Your task to perform on an android device: delete location history Image 0: 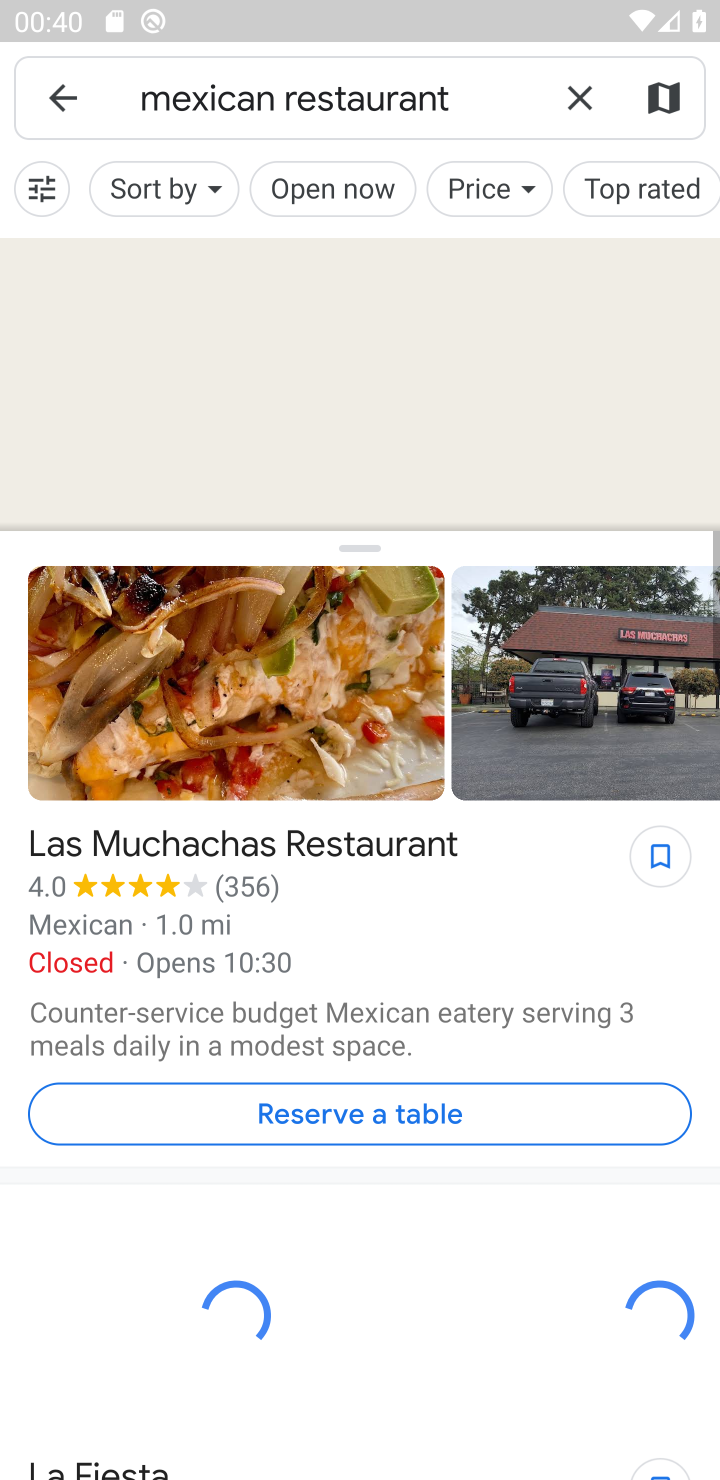
Step 0: press home button
Your task to perform on an android device: delete location history Image 1: 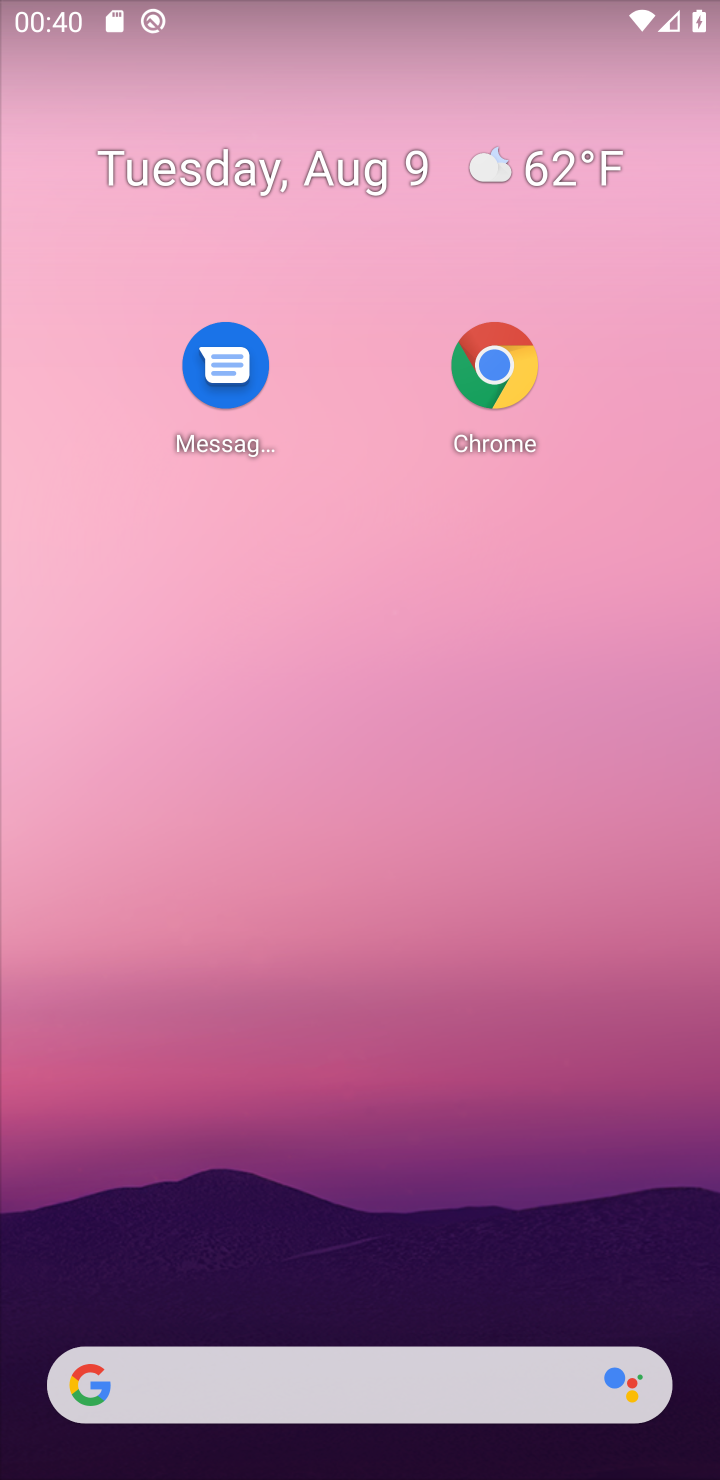
Step 1: drag from (271, 1187) to (277, 410)
Your task to perform on an android device: delete location history Image 2: 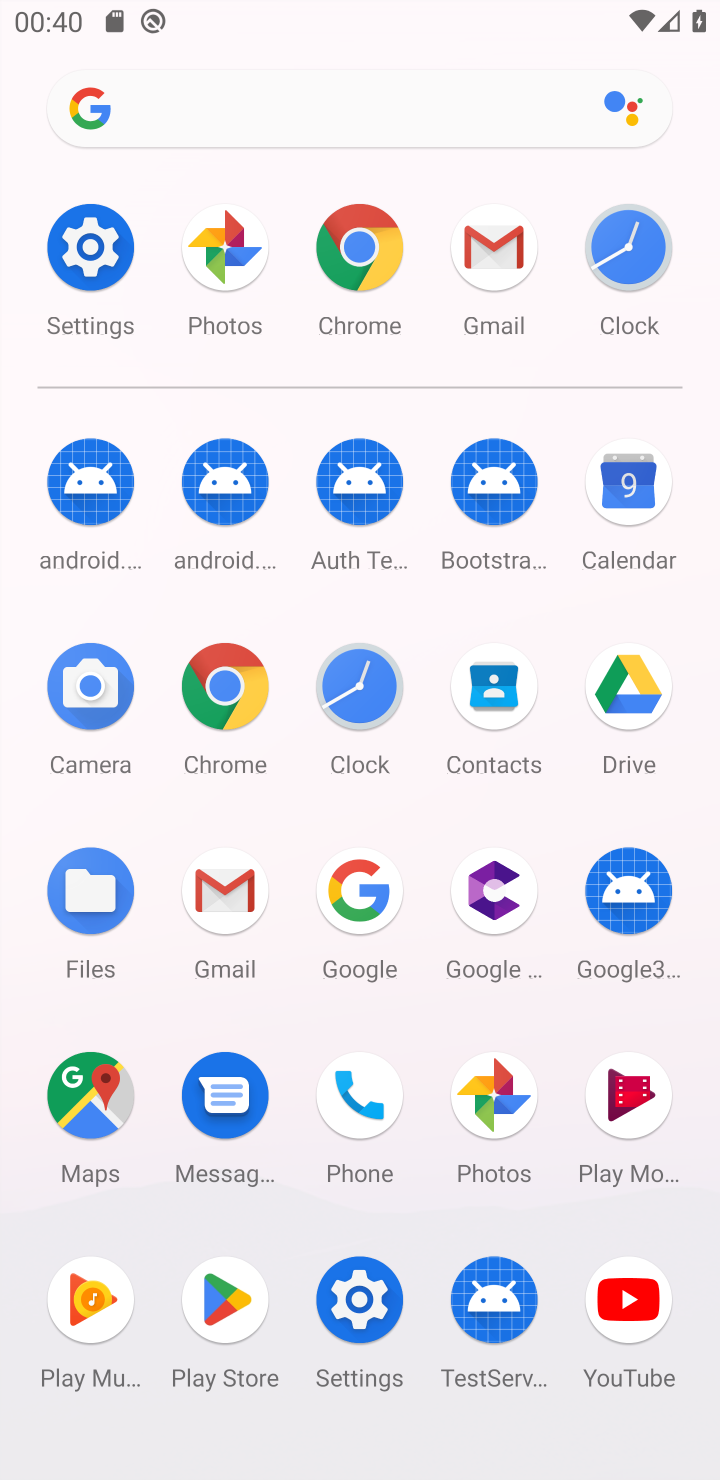
Step 2: click (87, 238)
Your task to perform on an android device: delete location history Image 3: 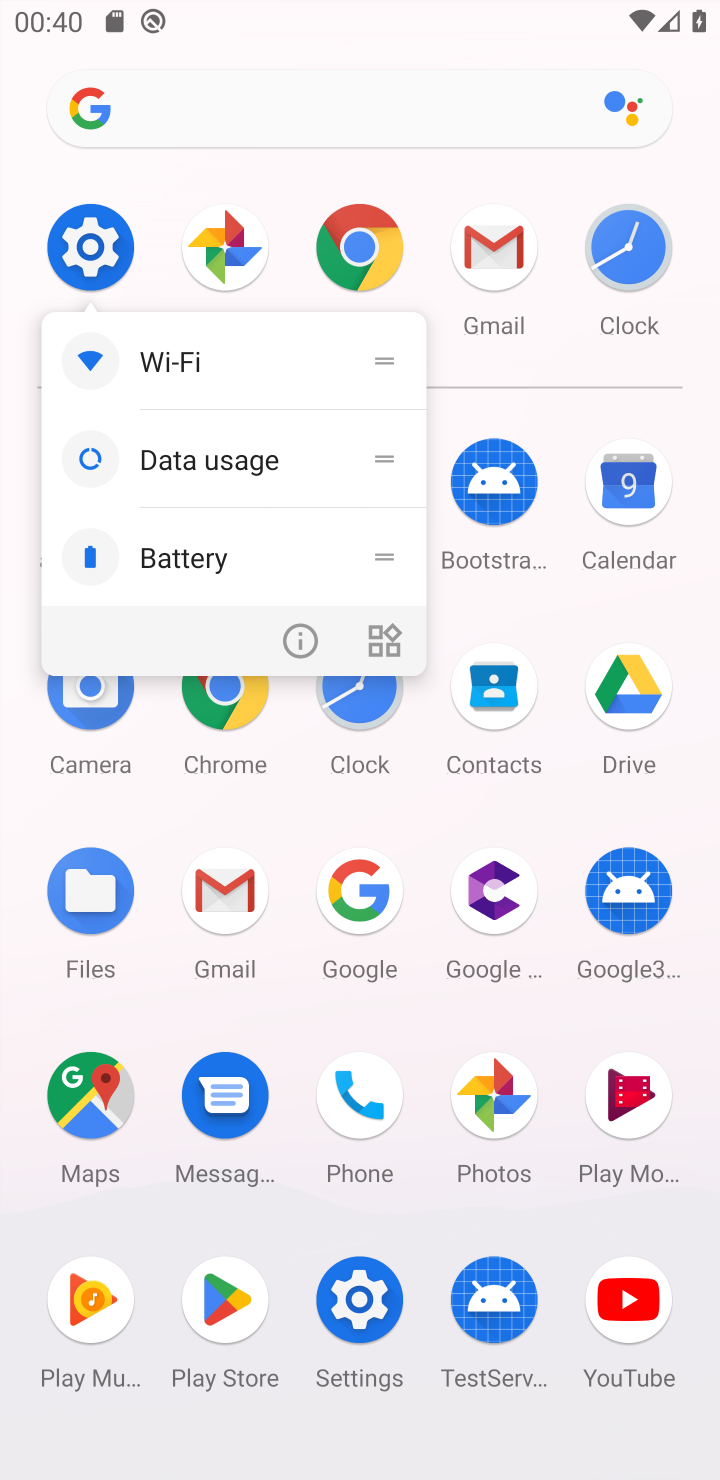
Step 3: click (87, 238)
Your task to perform on an android device: delete location history Image 4: 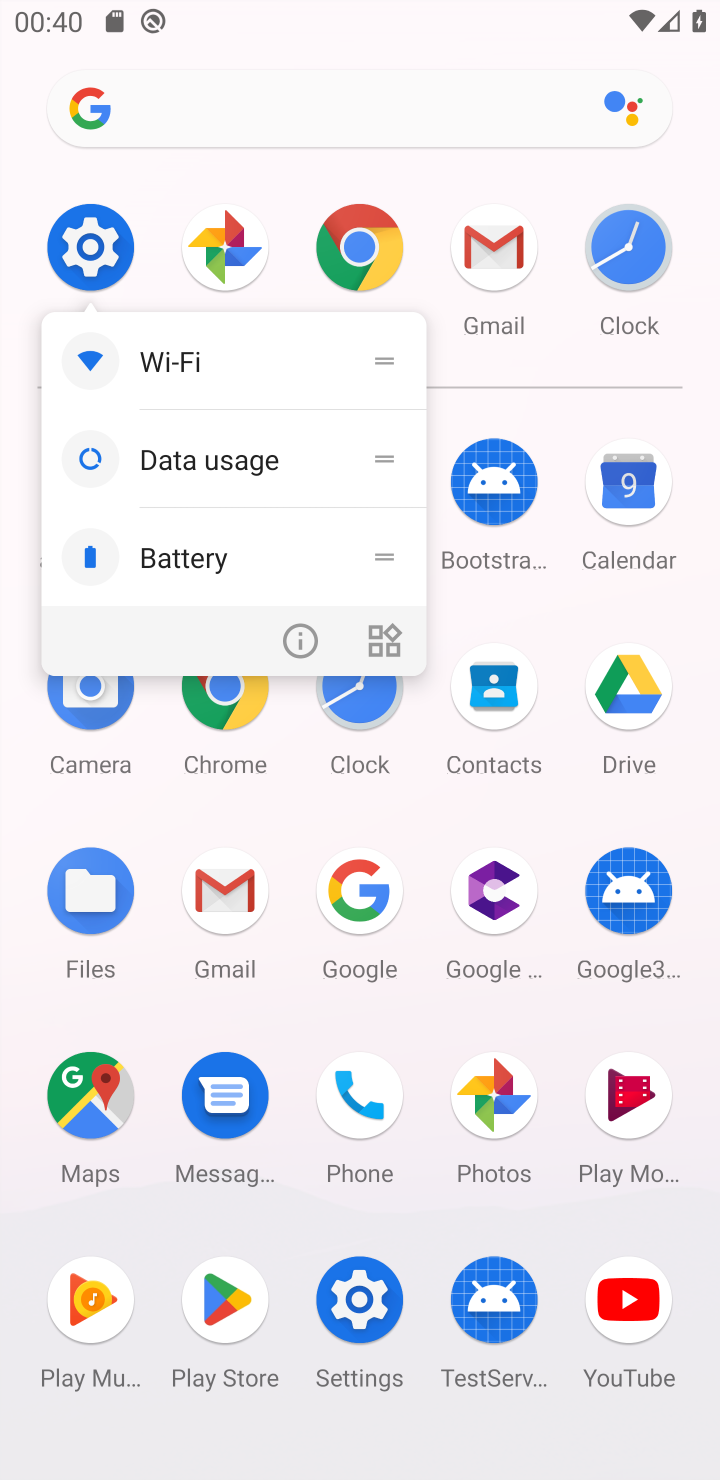
Step 4: click (87, 238)
Your task to perform on an android device: delete location history Image 5: 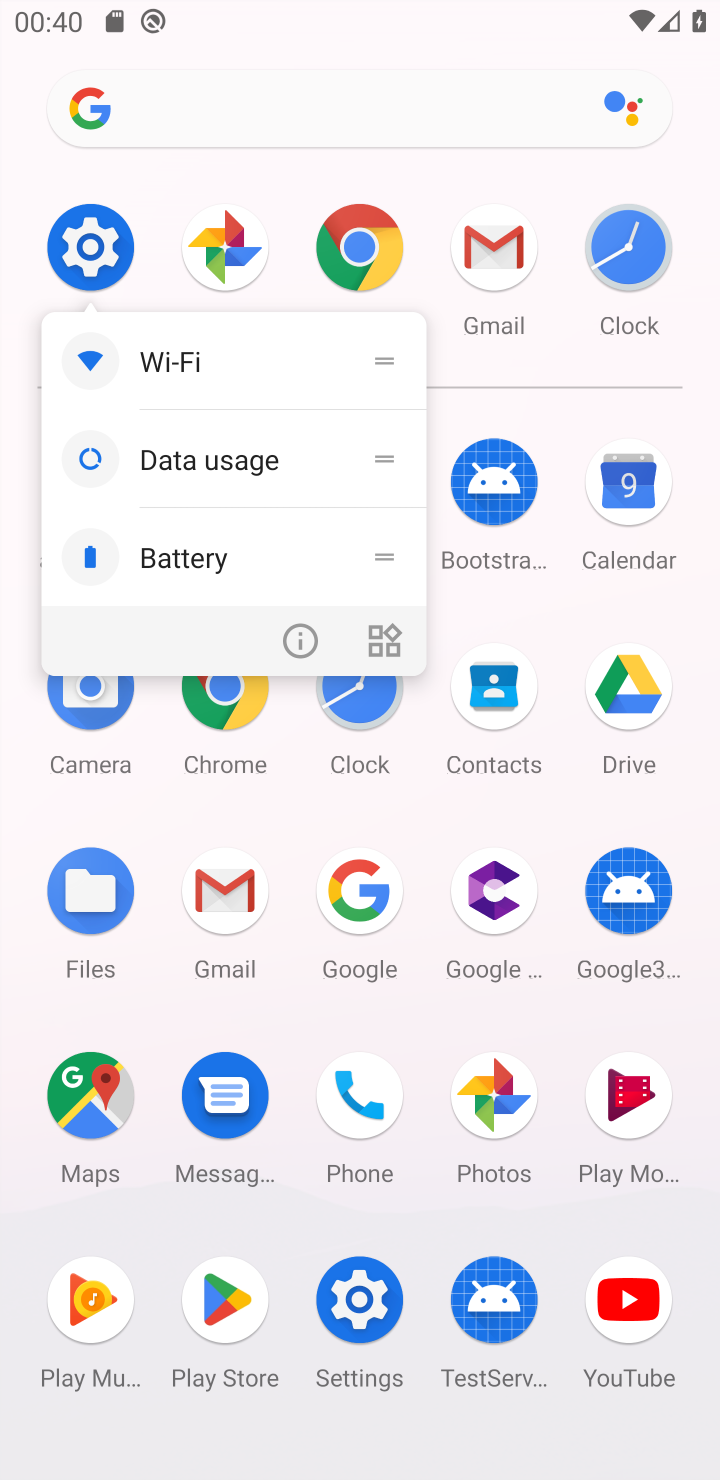
Step 5: click (87, 238)
Your task to perform on an android device: delete location history Image 6: 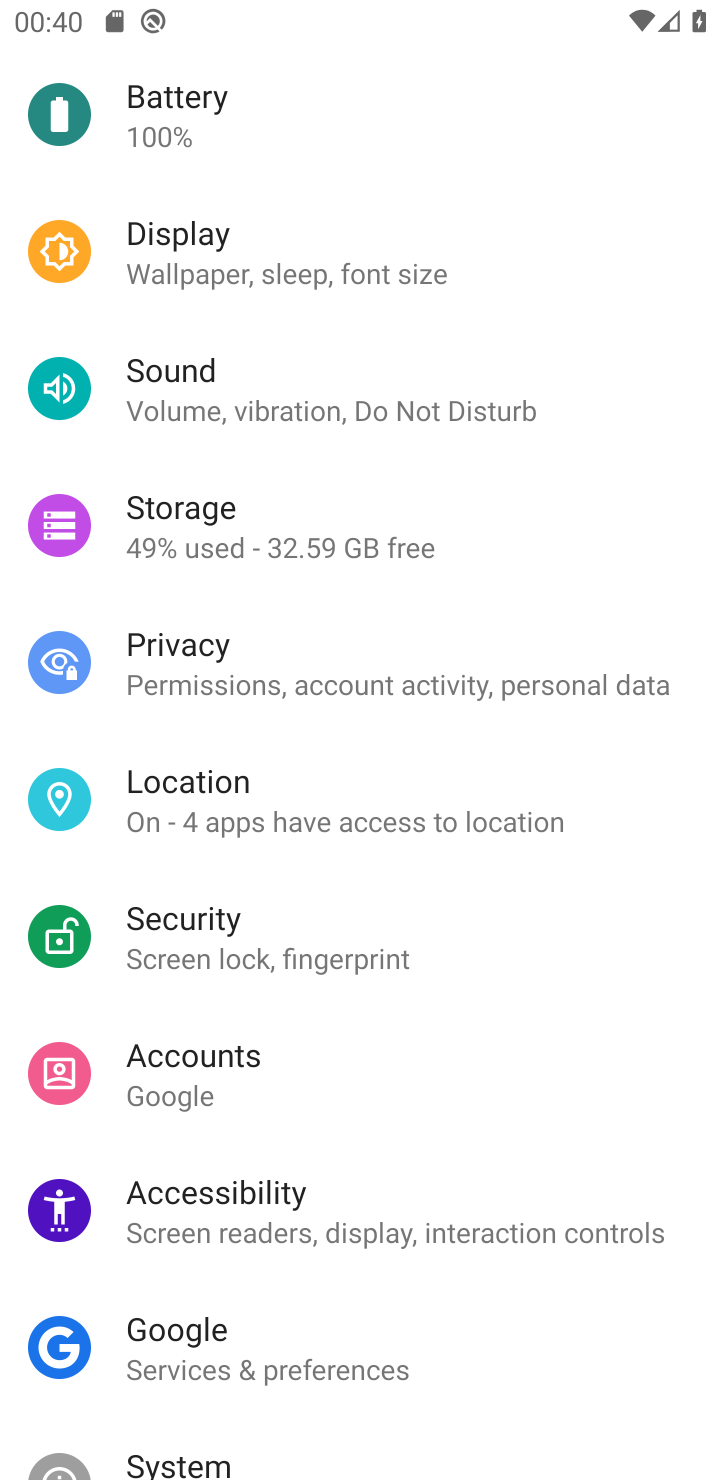
Step 6: click (129, 809)
Your task to perform on an android device: delete location history Image 7: 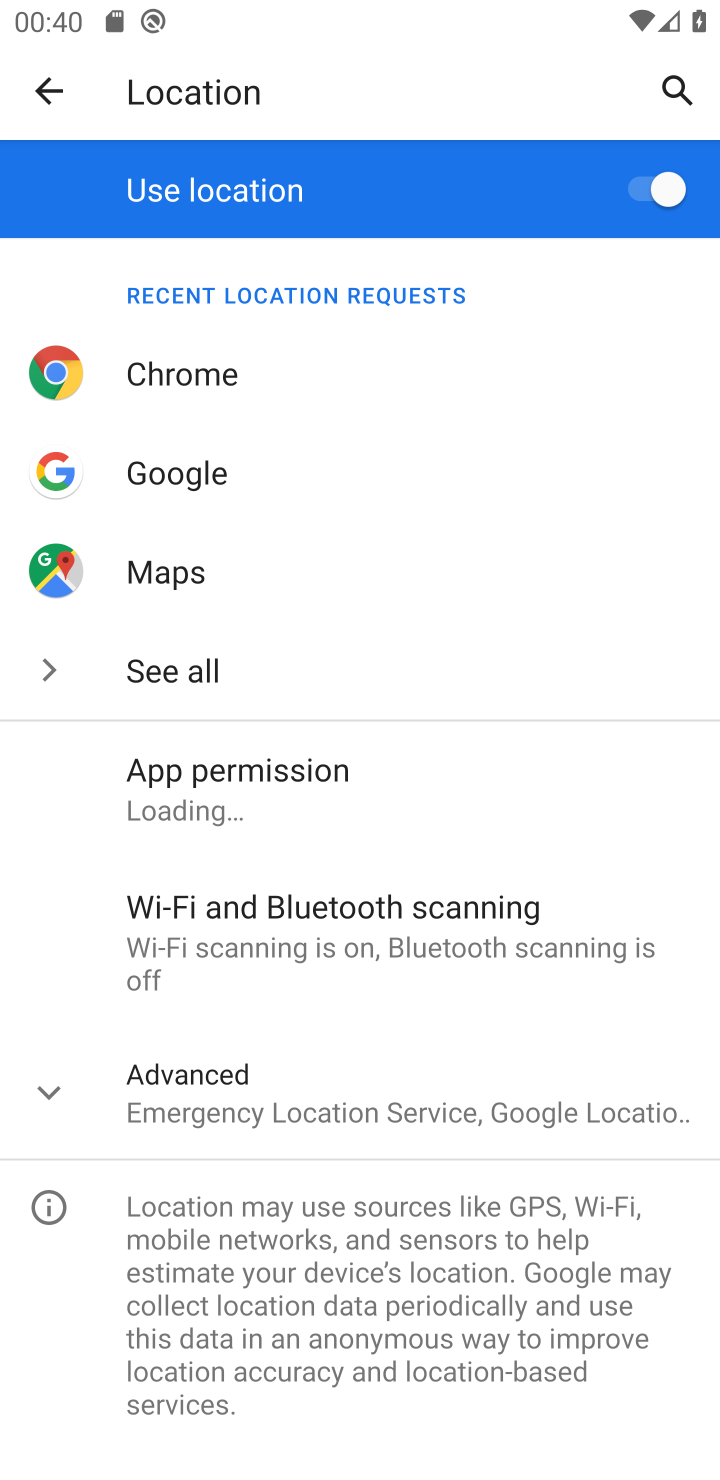
Step 7: click (168, 1056)
Your task to perform on an android device: delete location history Image 8: 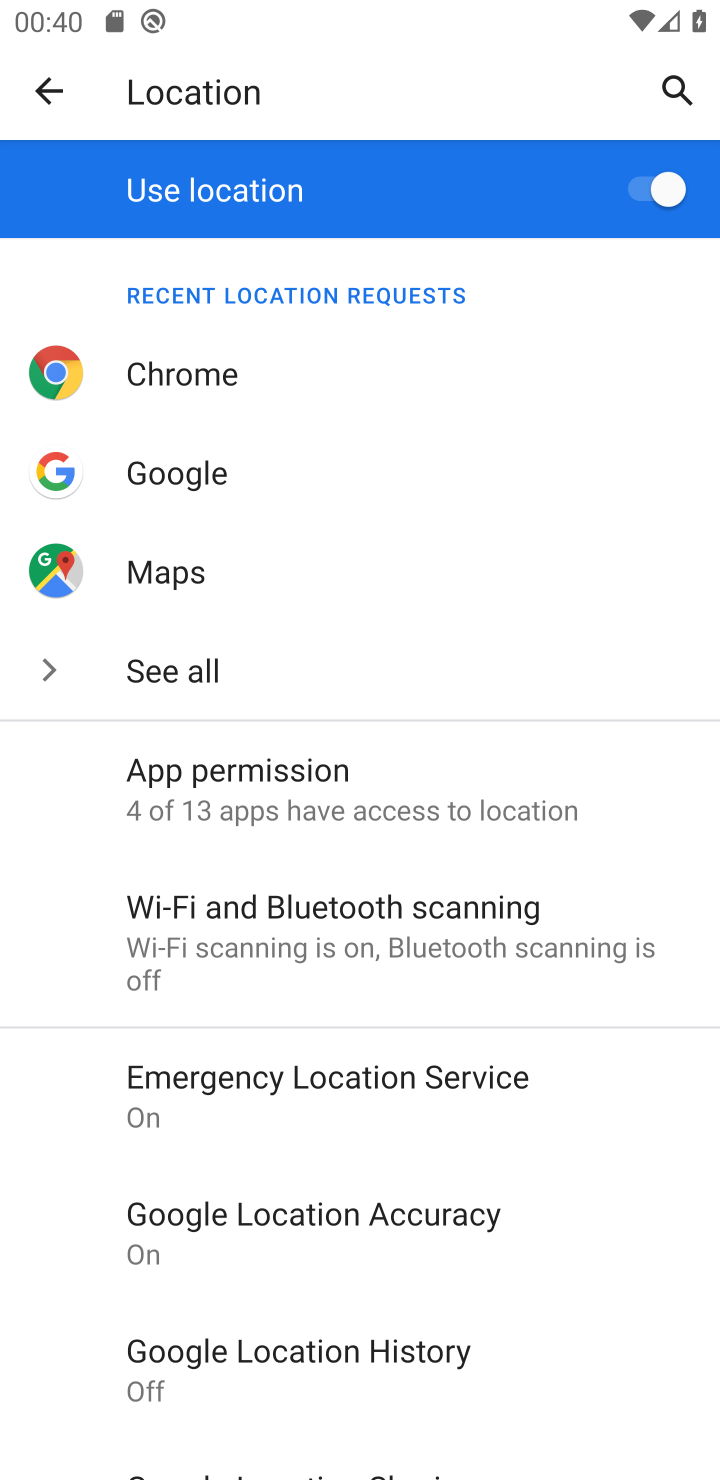
Step 8: press home button
Your task to perform on an android device: delete location history Image 9: 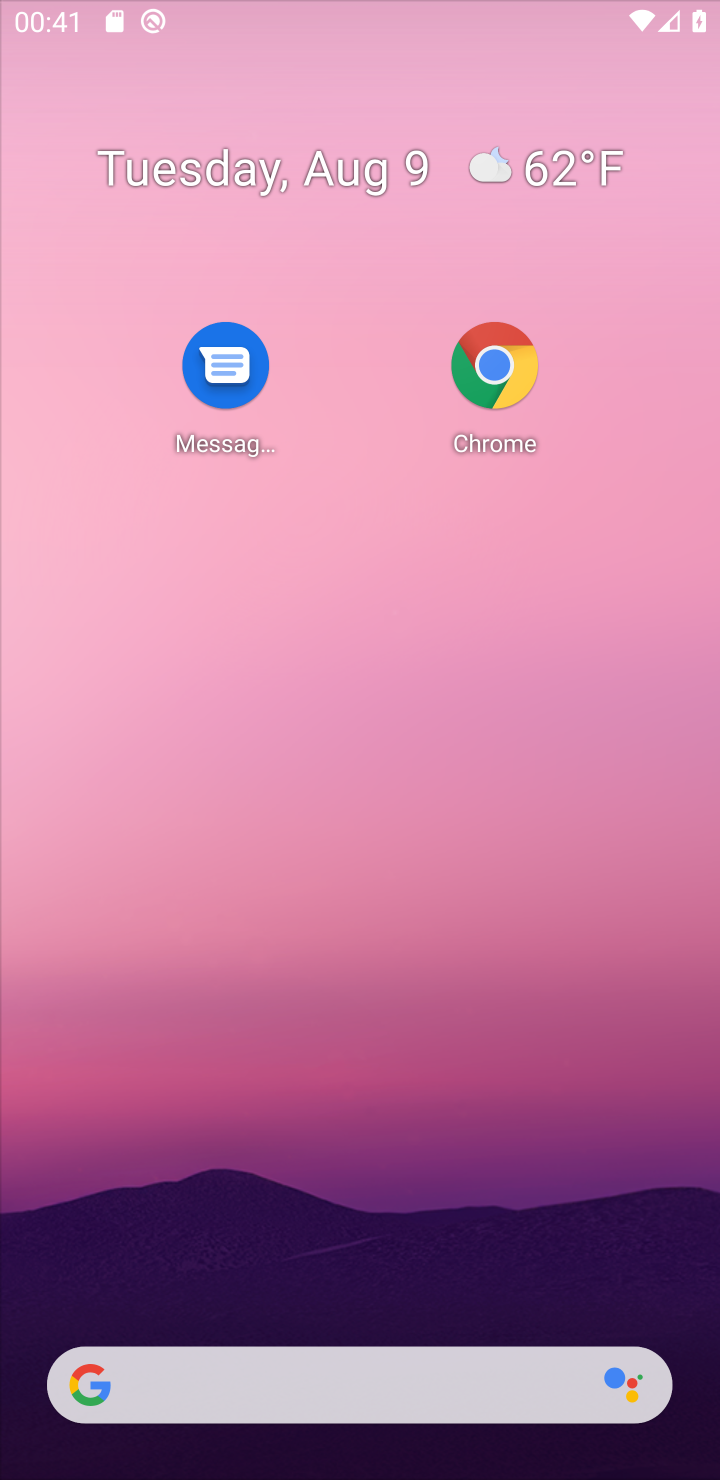
Step 9: drag from (195, 1244) to (219, 240)
Your task to perform on an android device: delete location history Image 10: 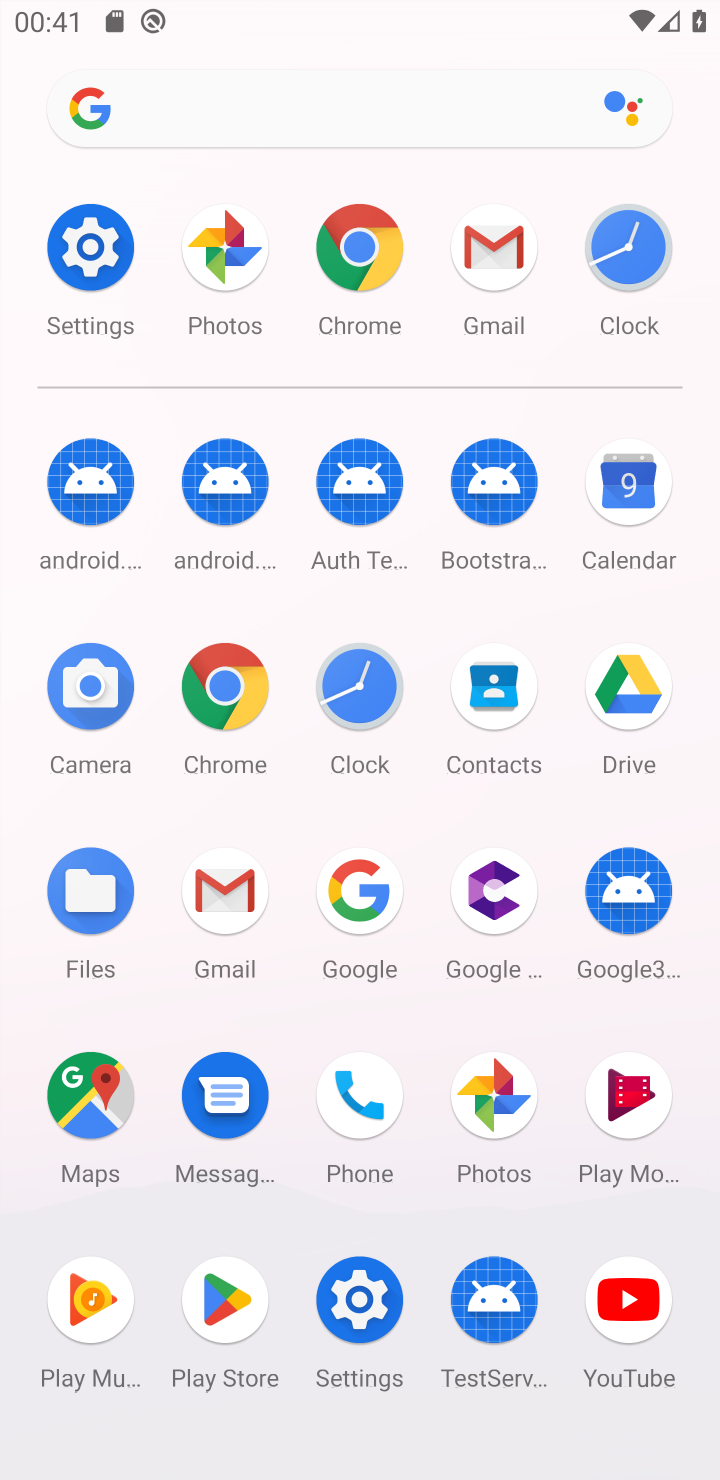
Step 10: click (116, 1081)
Your task to perform on an android device: delete location history Image 11: 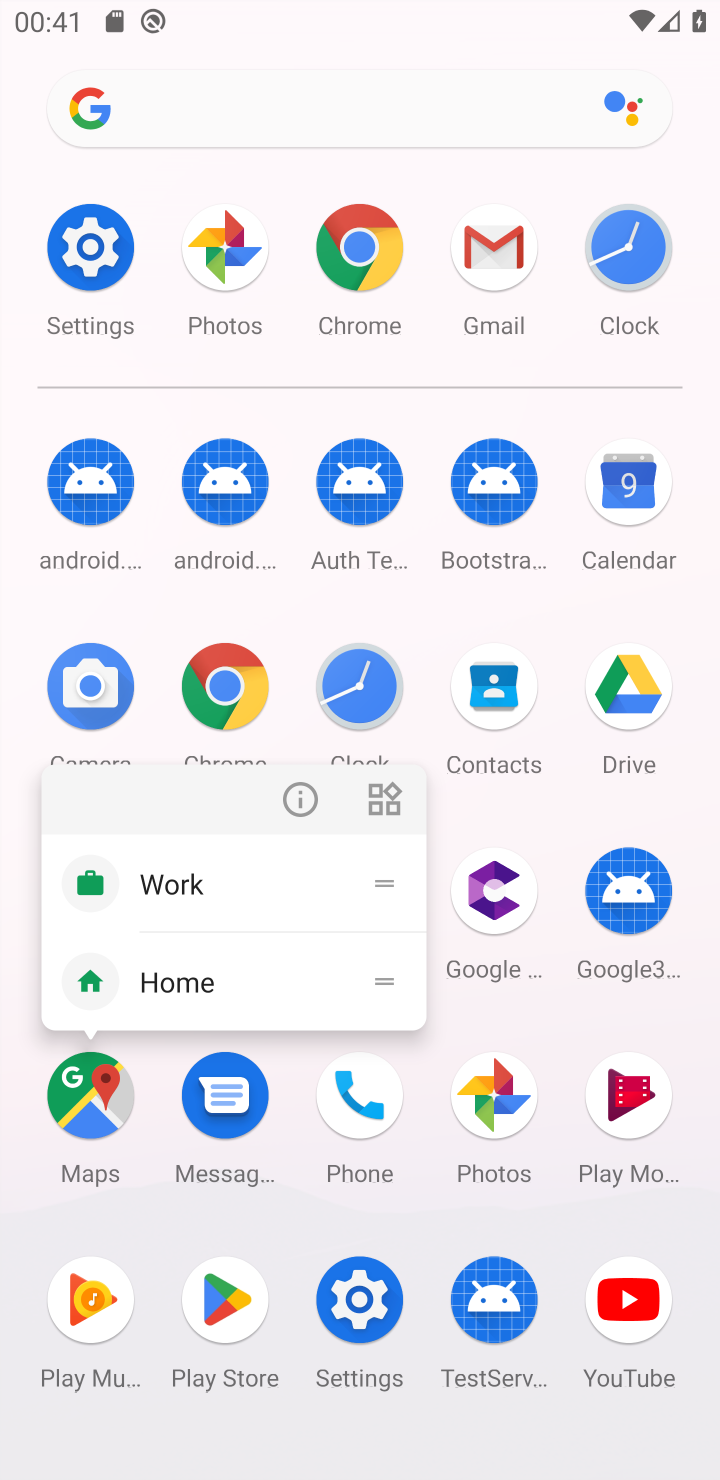
Step 11: click (60, 1062)
Your task to perform on an android device: delete location history Image 12: 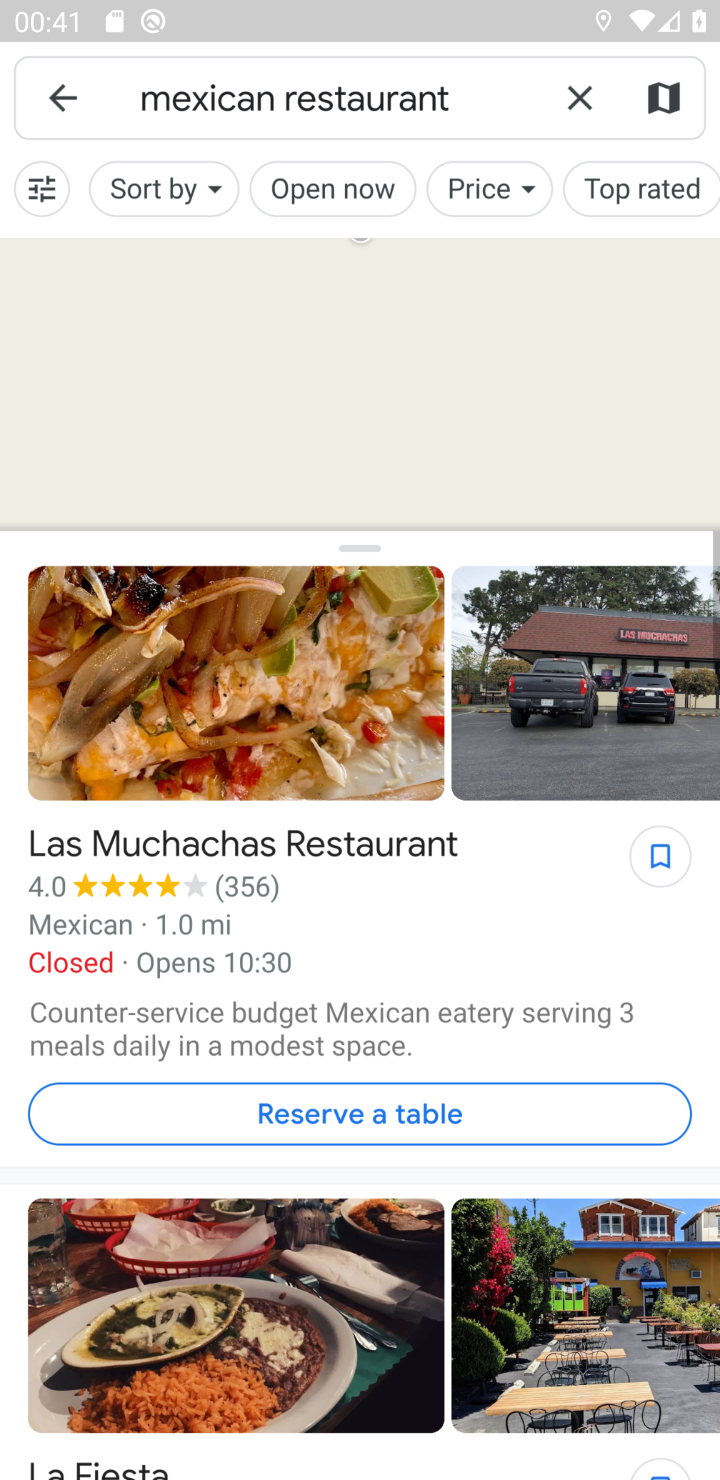
Step 12: click (567, 87)
Your task to perform on an android device: delete location history Image 13: 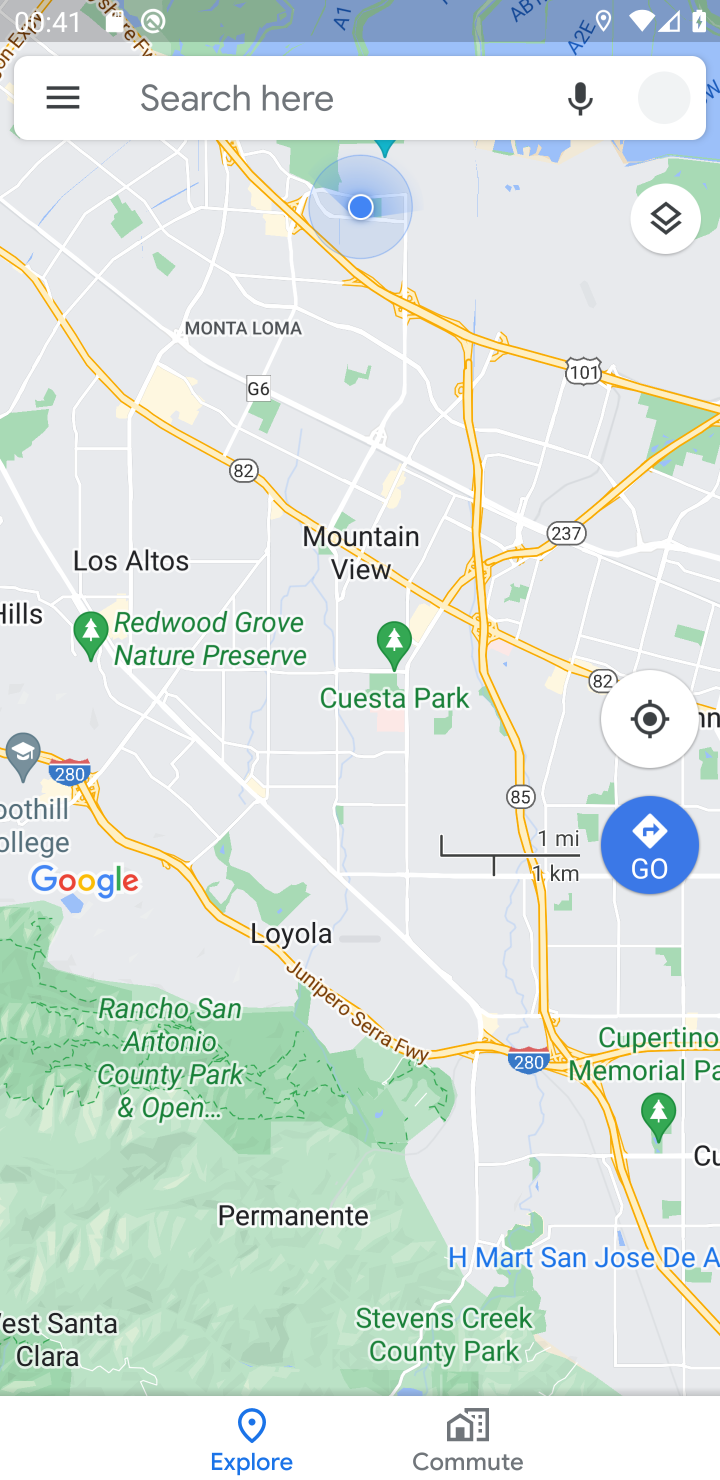
Step 13: click (63, 107)
Your task to perform on an android device: delete location history Image 14: 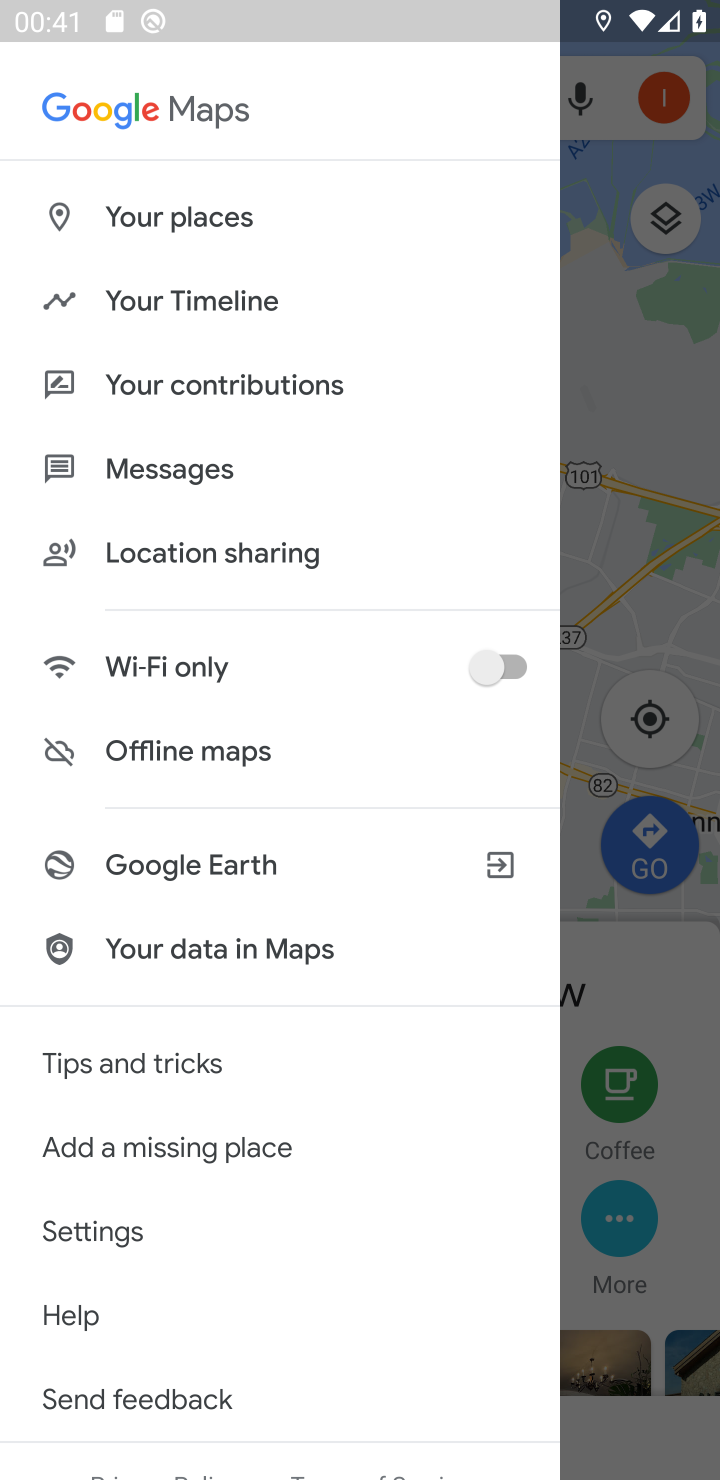
Step 14: click (198, 303)
Your task to perform on an android device: delete location history Image 15: 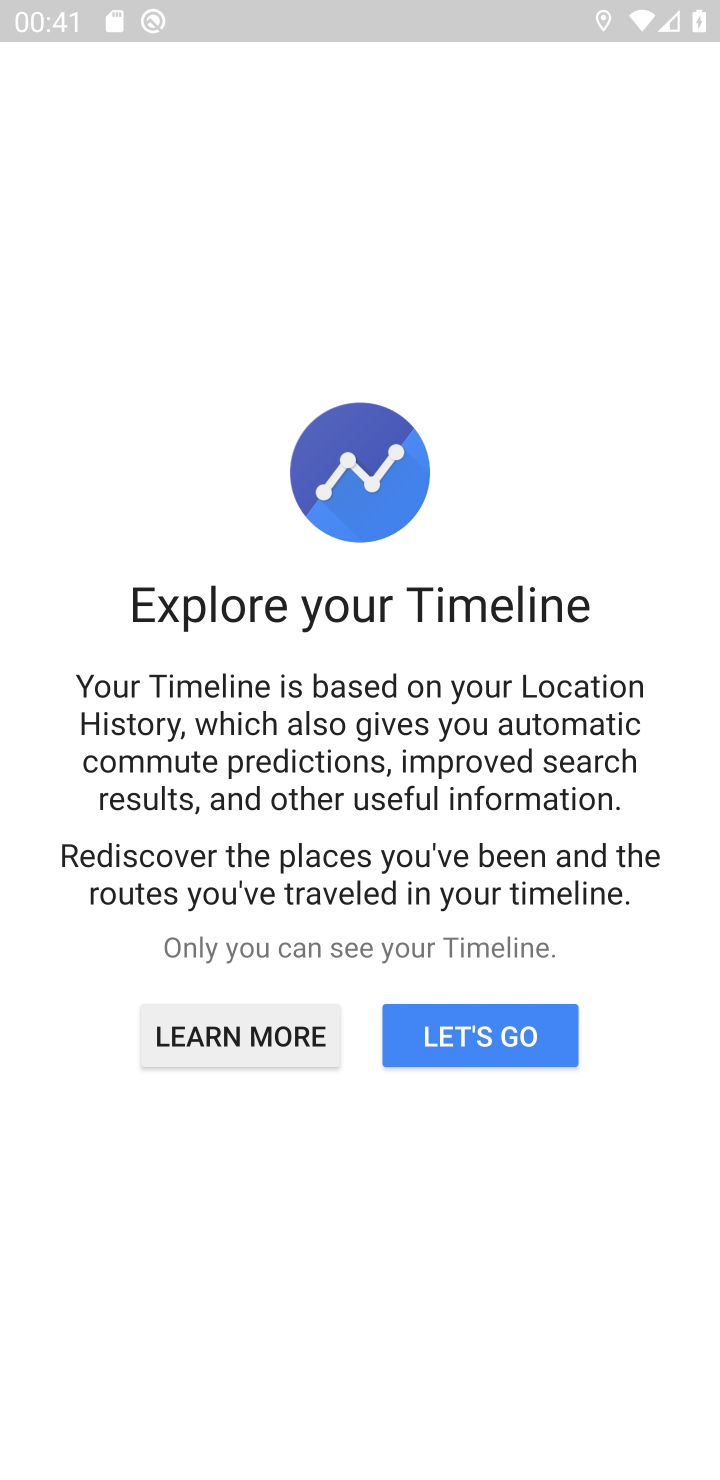
Step 15: click (458, 1023)
Your task to perform on an android device: delete location history Image 16: 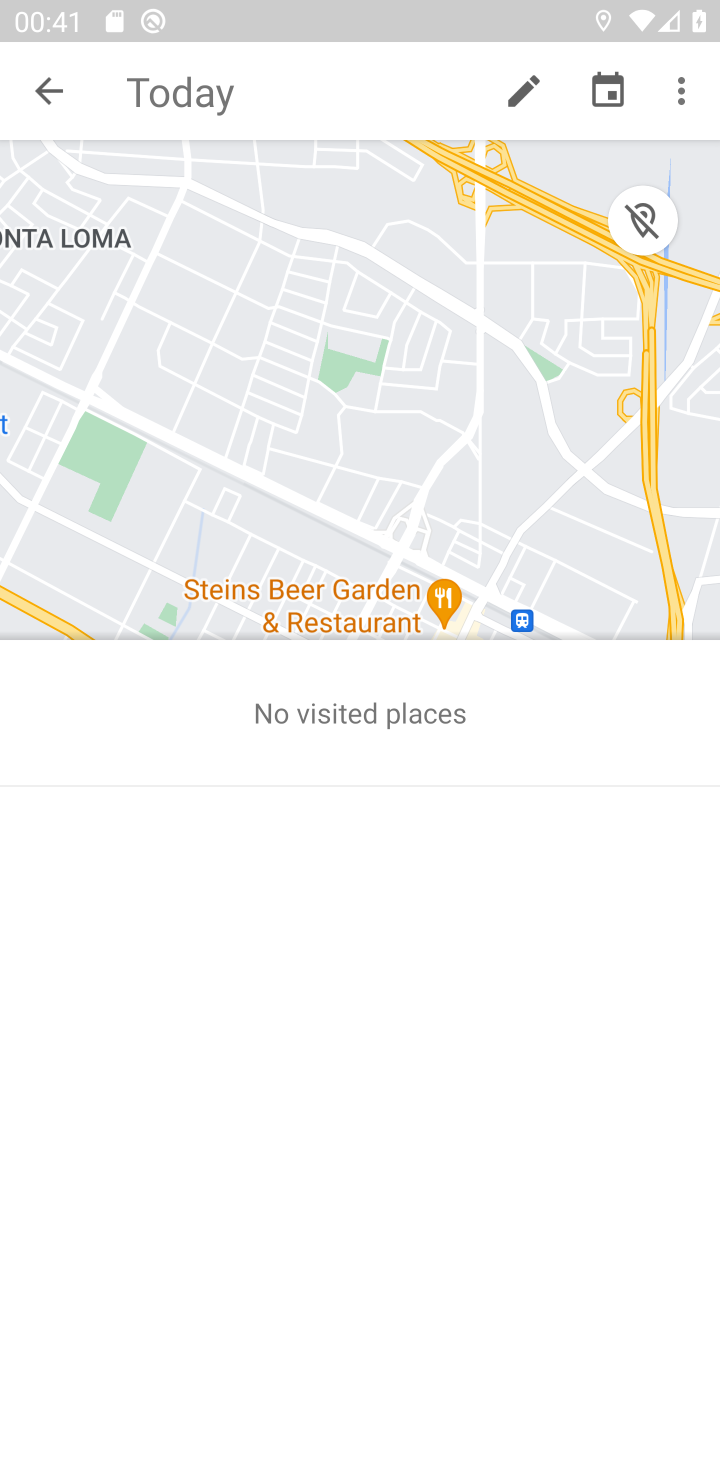
Step 16: click (688, 72)
Your task to perform on an android device: delete location history Image 17: 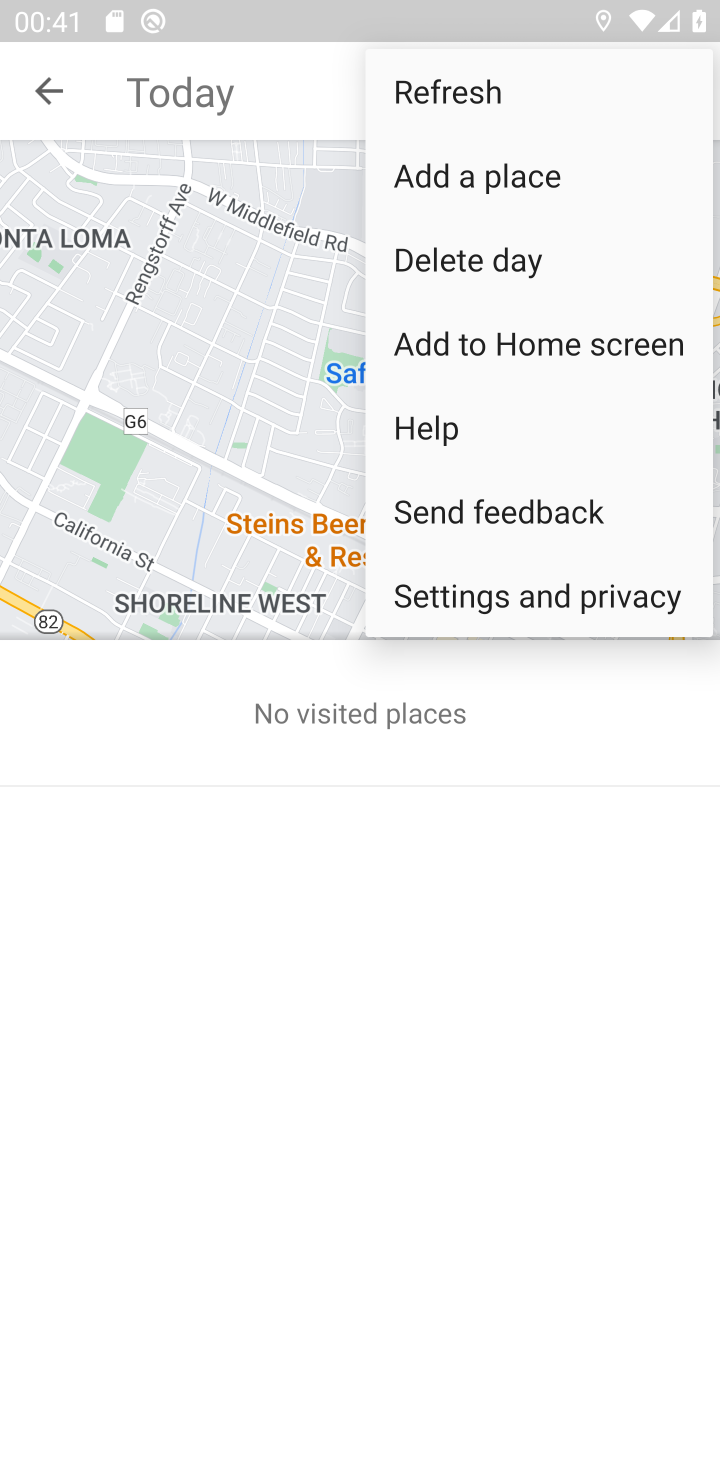
Step 17: click (473, 614)
Your task to perform on an android device: delete location history Image 18: 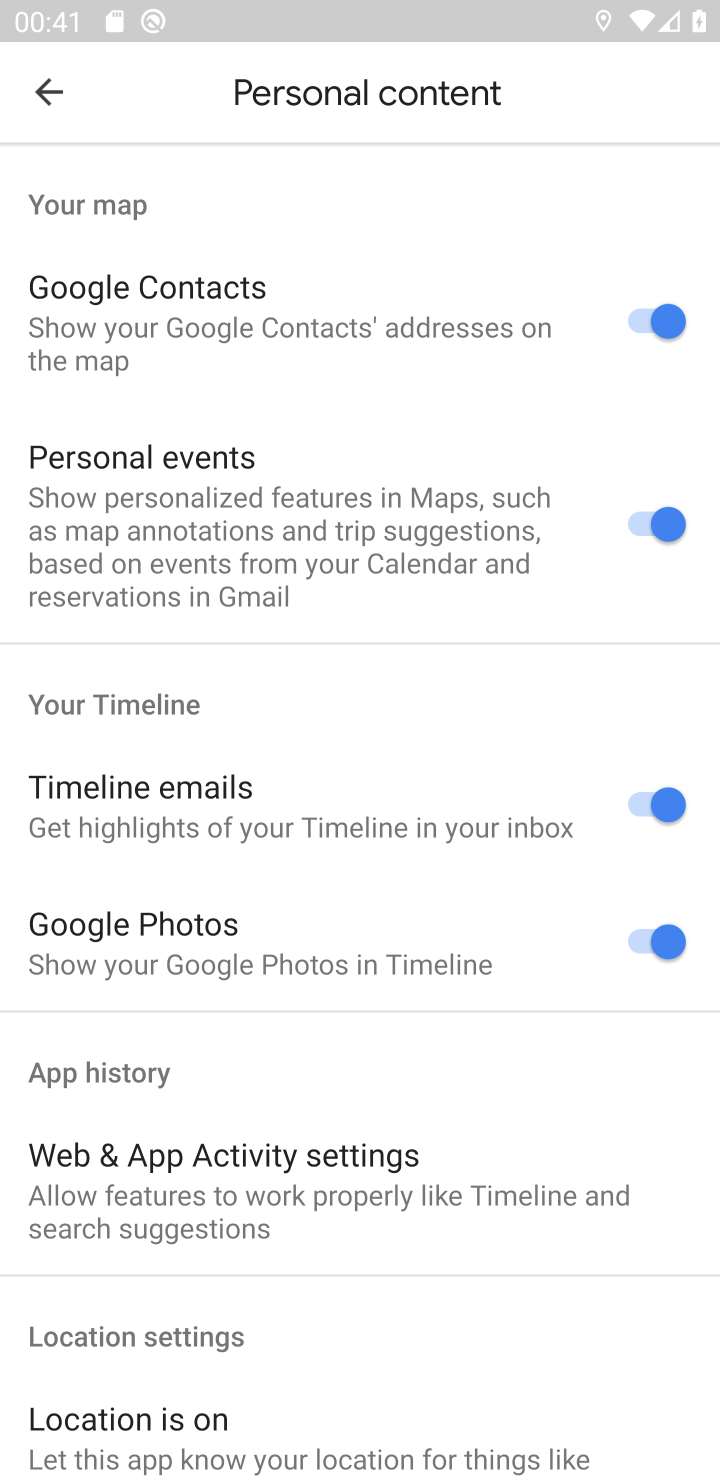
Step 18: drag from (221, 1298) to (417, 241)
Your task to perform on an android device: delete location history Image 19: 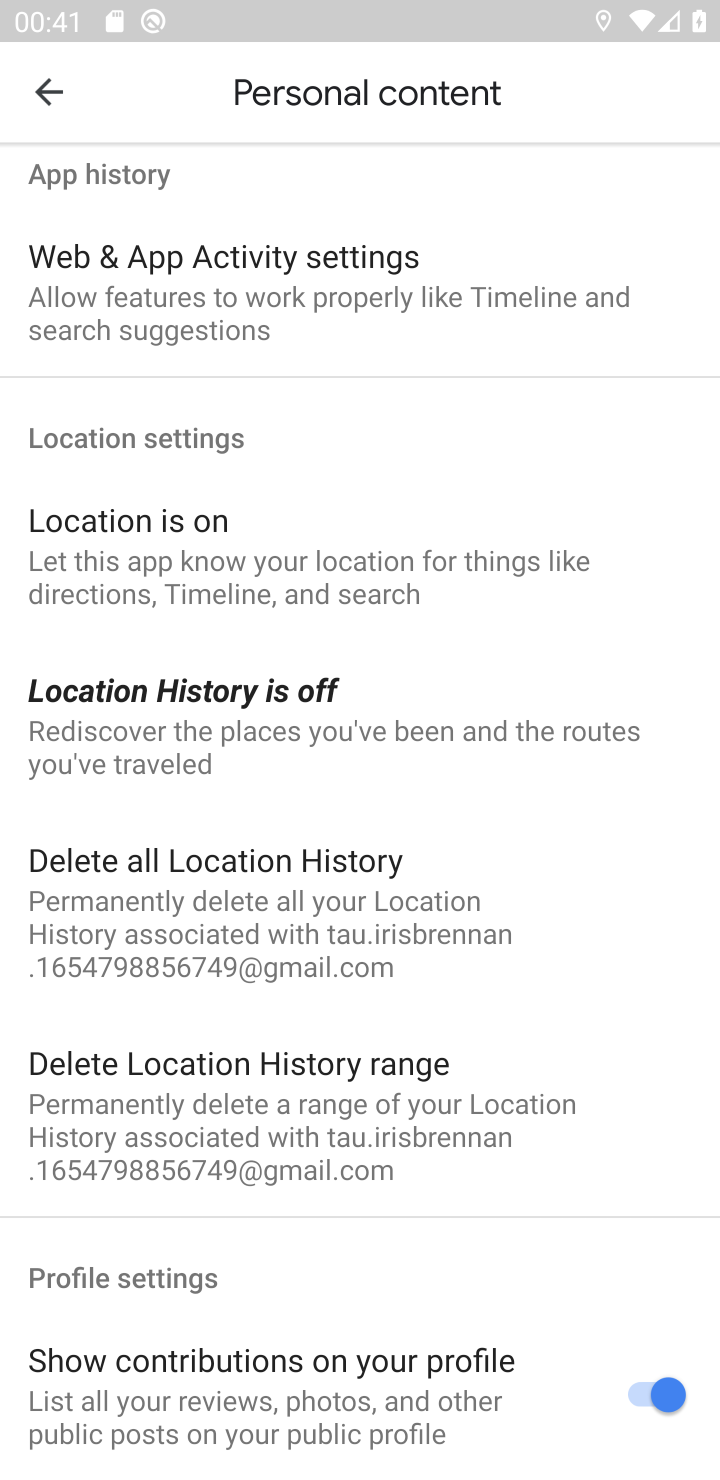
Step 19: click (210, 1110)
Your task to perform on an android device: delete location history Image 20: 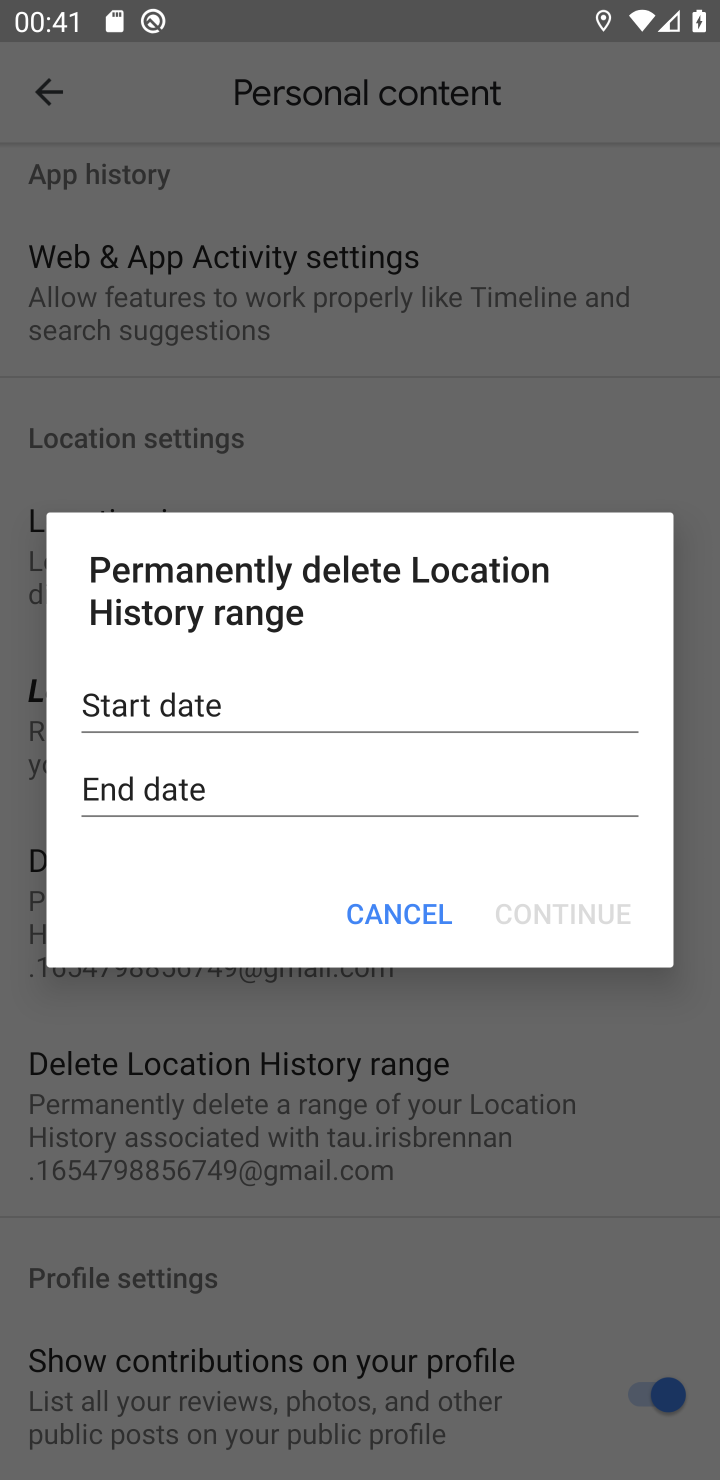
Step 20: click (403, 924)
Your task to perform on an android device: delete location history Image 21: 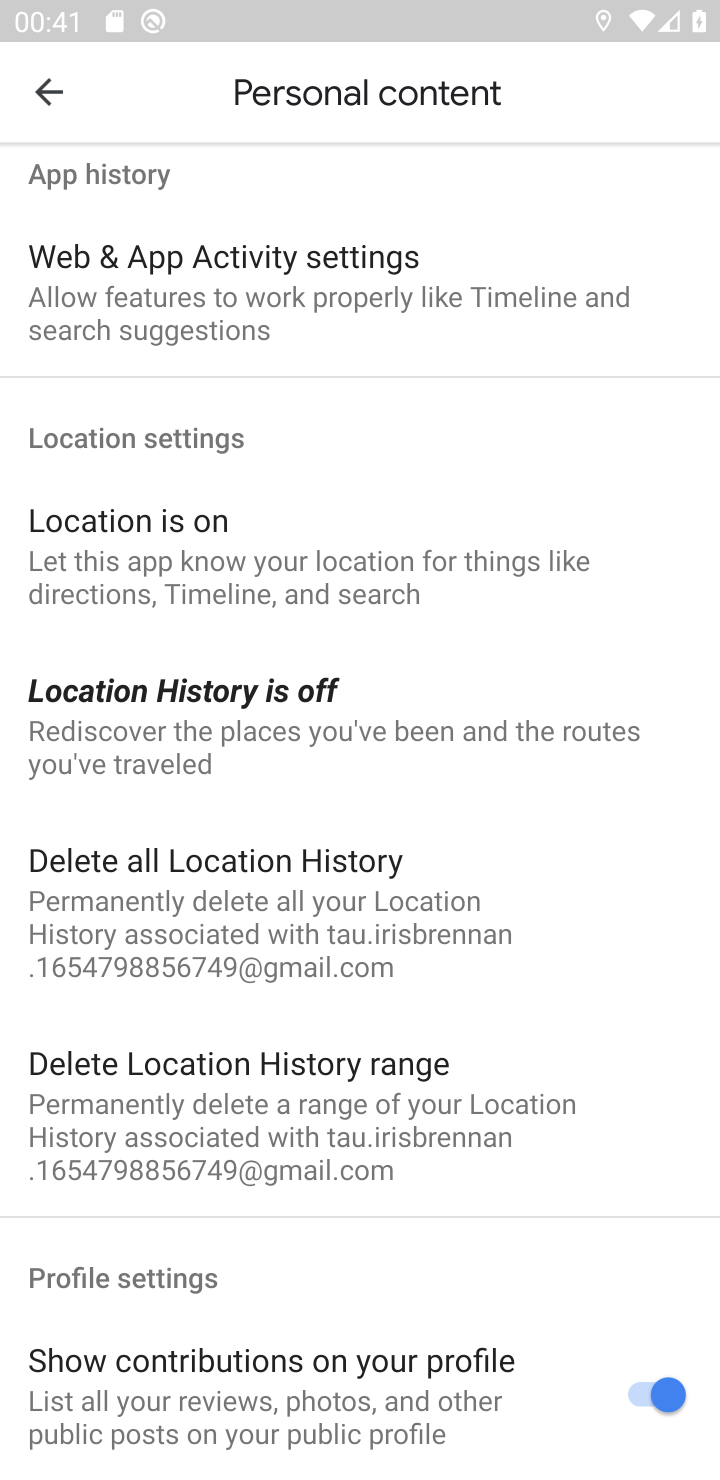
Step 21: click (314, 903)
Your task to perform on an android device: delete location history Image 22: 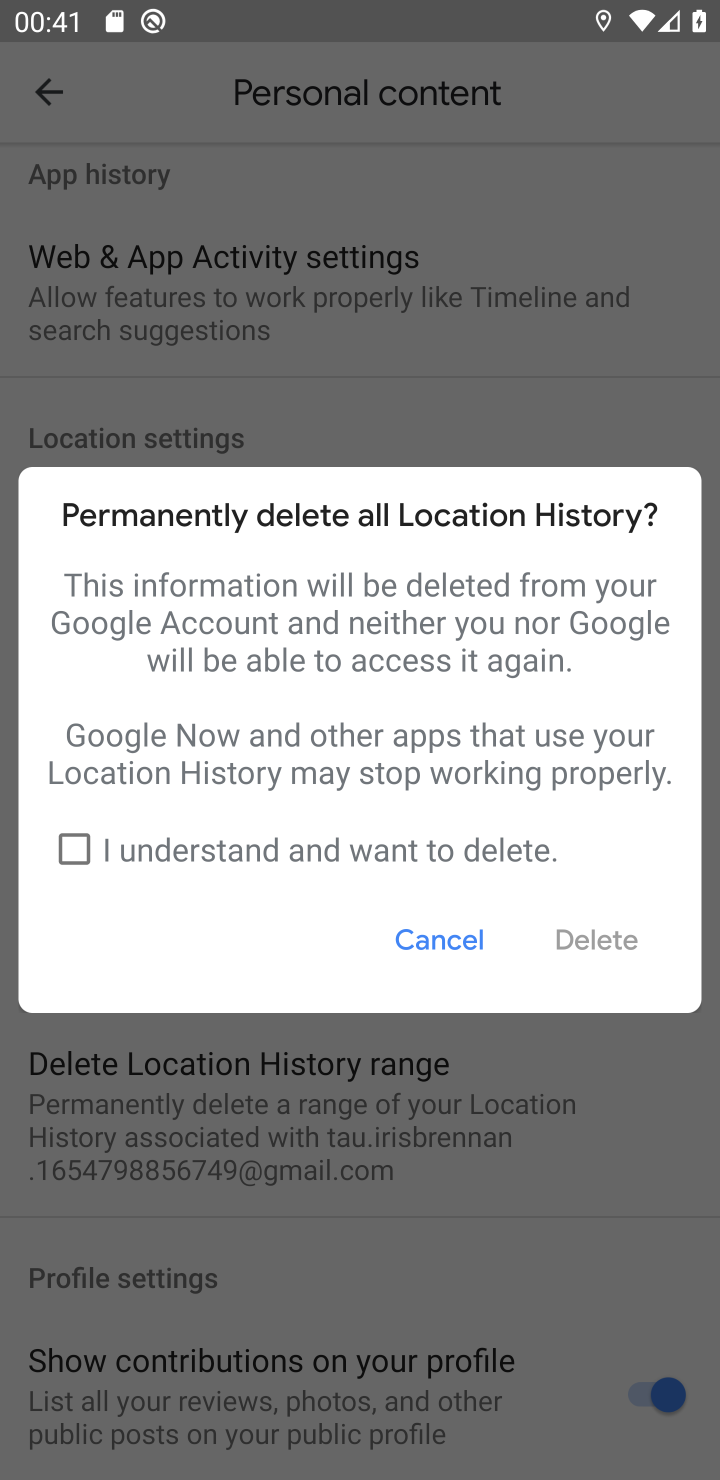
Step 22: click (74, 852)
Your task to perform on an android device: delete location history Image 23: 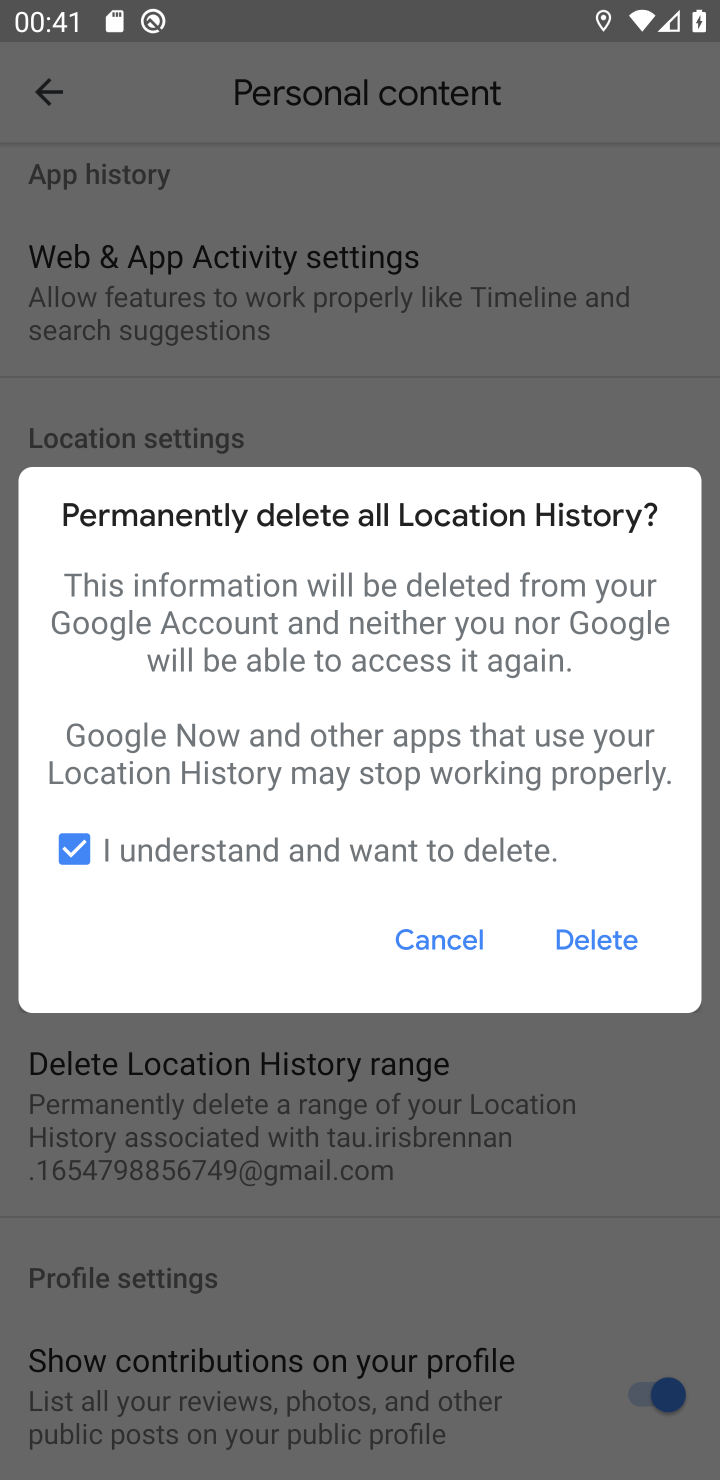
Step 23: click (597, 949)
Your task to perform on an android device: delete location history Image 24: 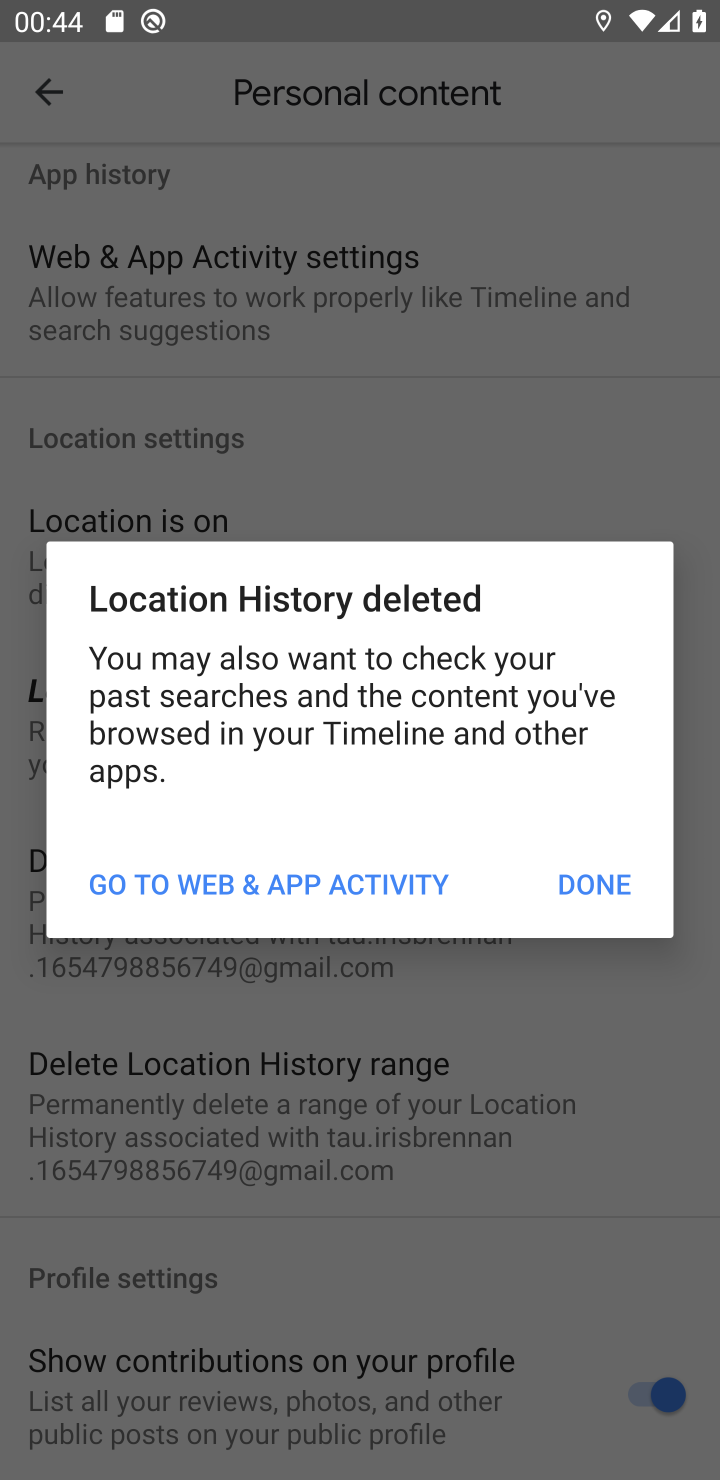
Step 24: click (615, 879)
Your task to perform on an android device: delete location history Image 25: 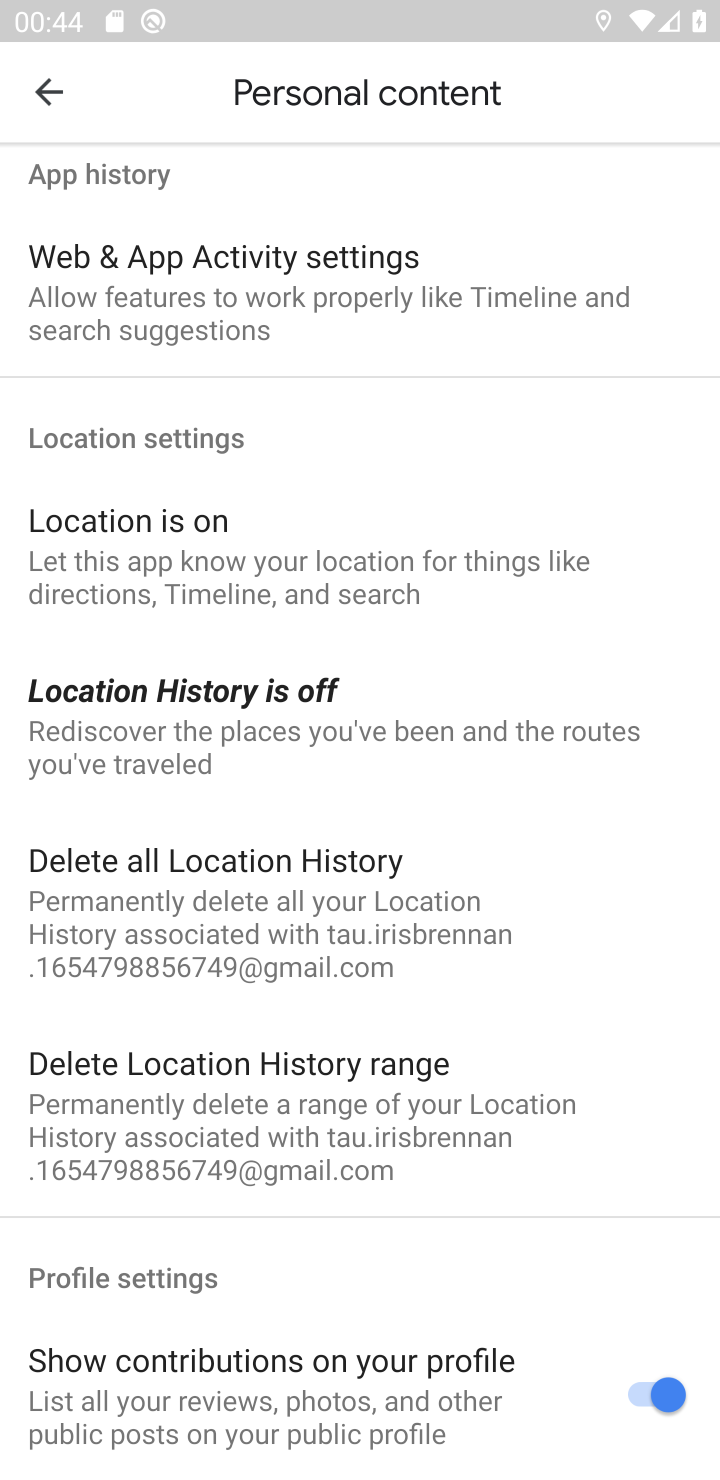
Step 25: task complete